Your task to perform on an android device: Go to display settings Image 0: 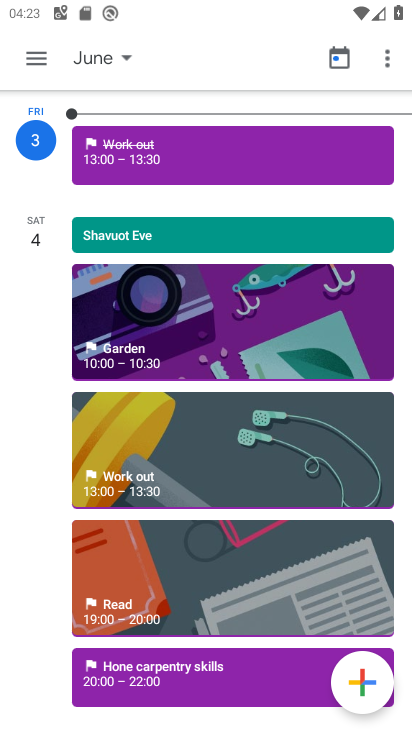
Step 0: press home button
Your task to perform on an android device: Go to display settings Image 1: 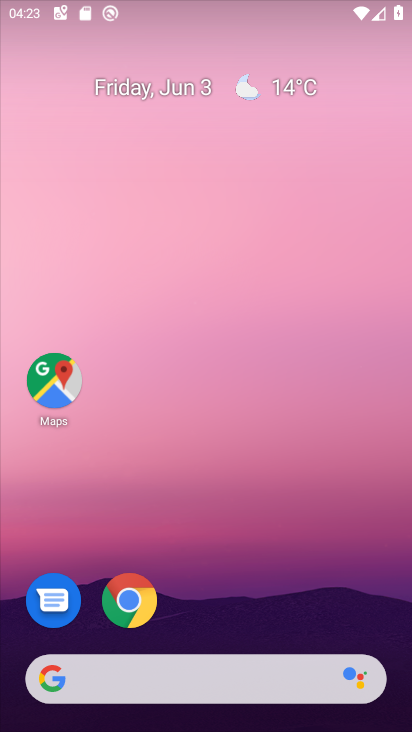
Step 1: drag from (275, 470) to (194, 141)
Your task to perform on an android device: Go to display settings Image 2: 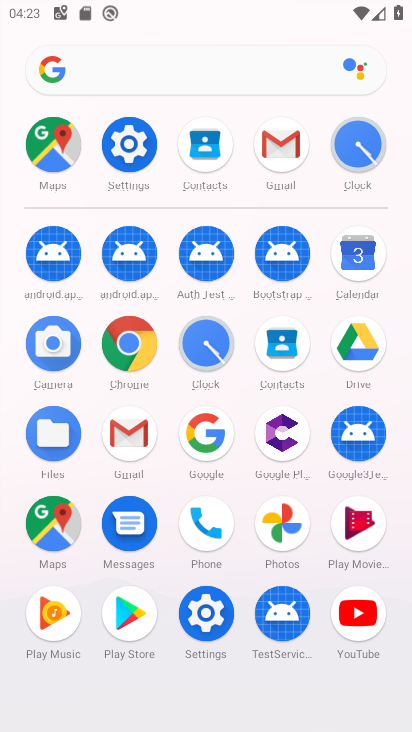
Step 2: click (130, 154)
Your task to perform on an android device: Go to display settings Image 3: 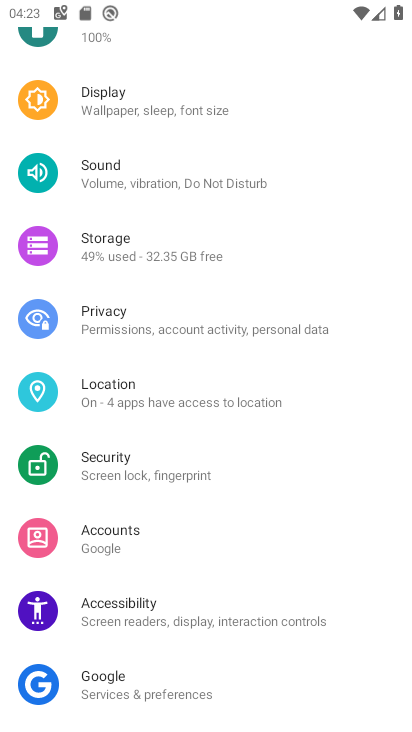
Step 3: click (169, 107)
Your task to perform on an android device: Go to display settings Image 4: 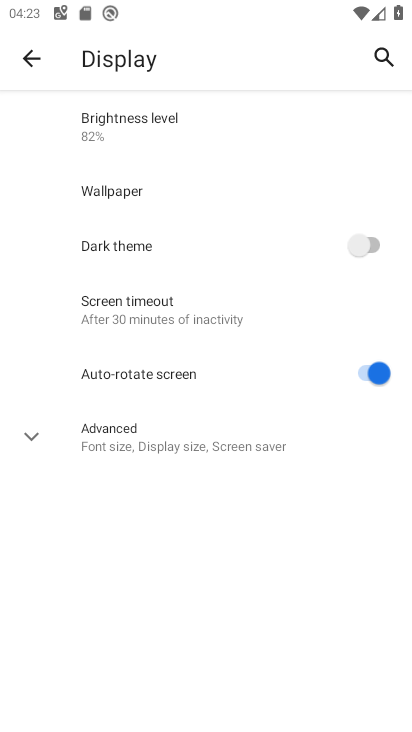
Step 4: task complete